Your task to perform on an android device: see sites visited before in the chrome app Image 0: 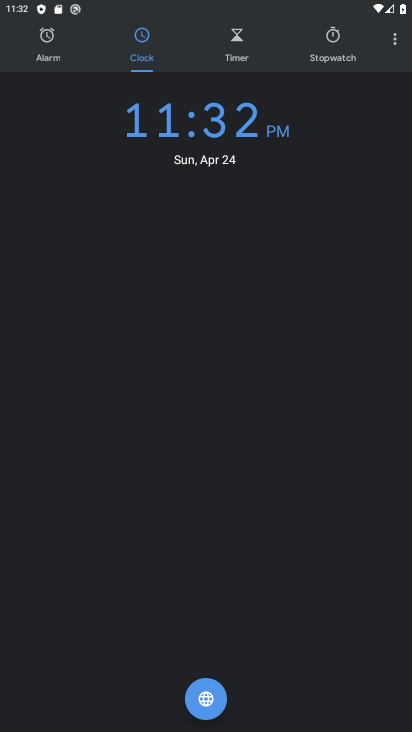
Step 0: press home button
Your task to perform on an android device: see sites visited before in the chrome app Image 1: 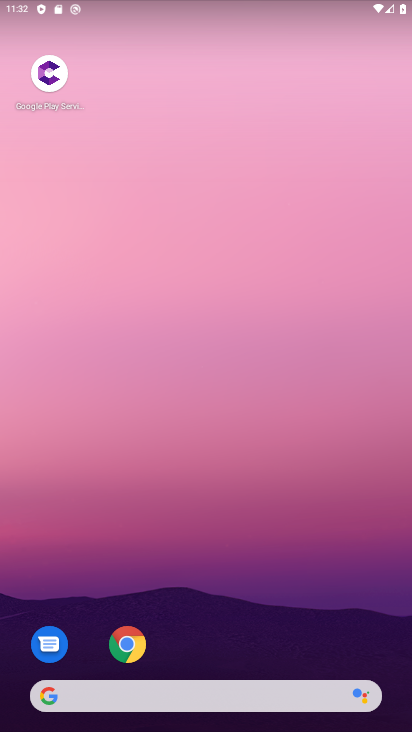
Step 1: drag from (226, 689) to (12, 16)
Your task to perform on an android device: see sites visited before in the chrome app Image 2: 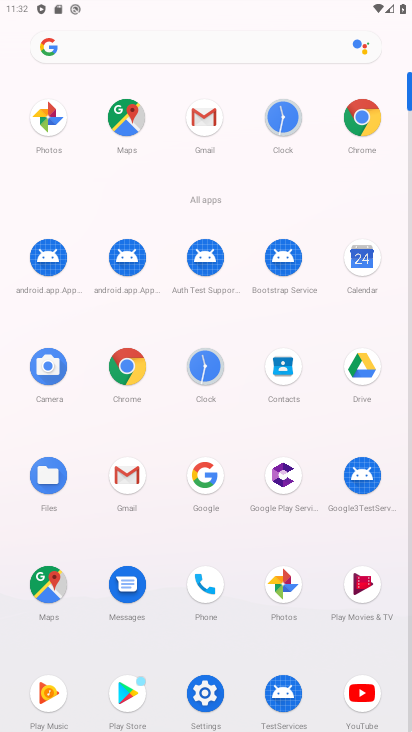
Step 2: click (16, 64)
Your task to perform on an android device: see sites visited before in the chrome app Image 3: 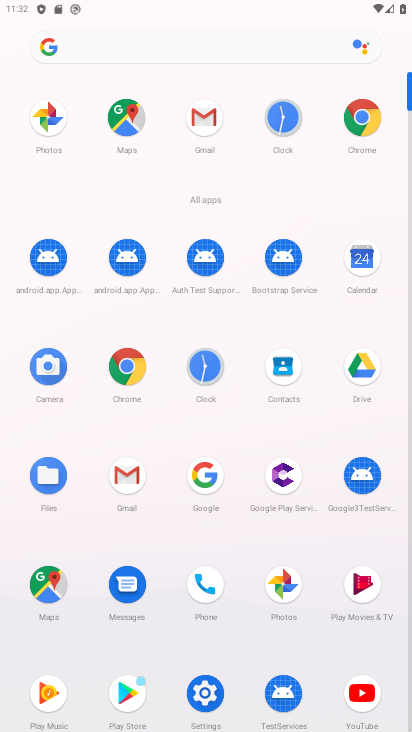
Step 3: click (367, 114)
Your task to perform on an android device: see sites visited before in the chrome app Image 4: 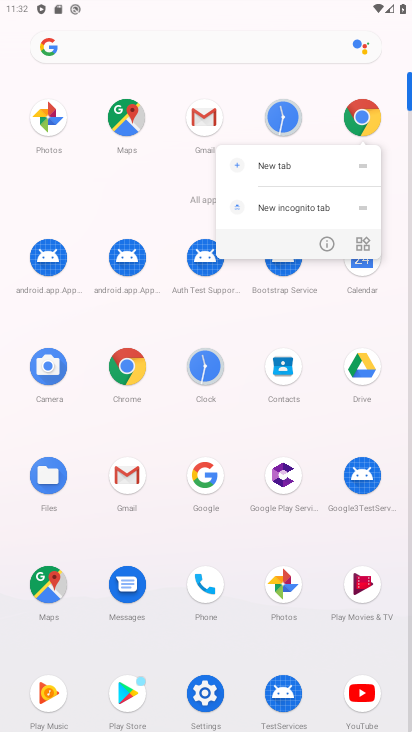
Step 4: click (364, 117)
Your task to perform on an android device: see sites visited before in the chrome app Image 5: 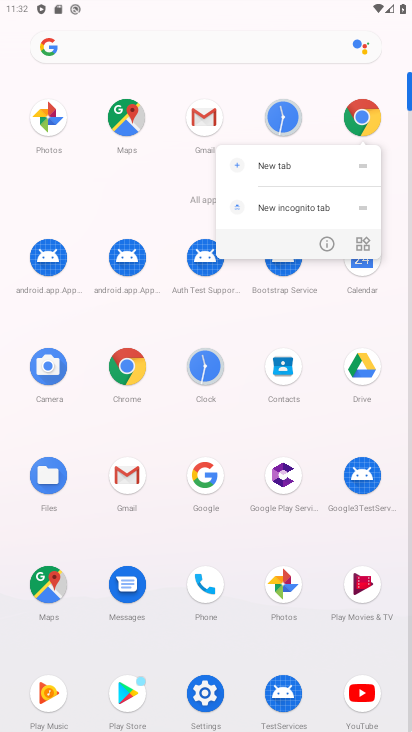
Step 5: click (363, 121)
Your task to perform on an android device: see sites visited before in the chrome app Image 6: 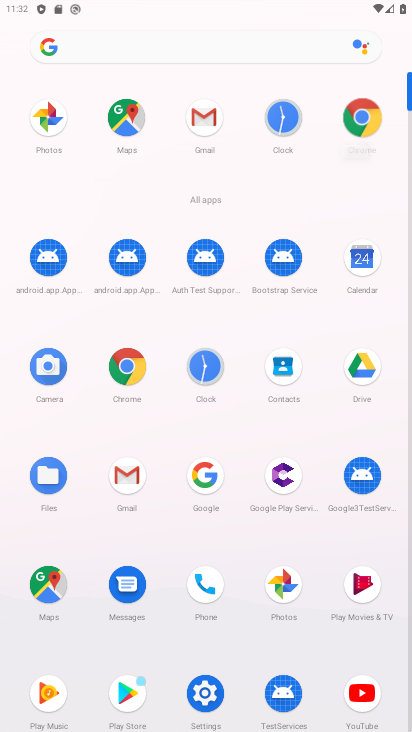
Step 6: click (363, 121)
Your task to perform on an android device: see sites visited before in the chrome app Image 7: 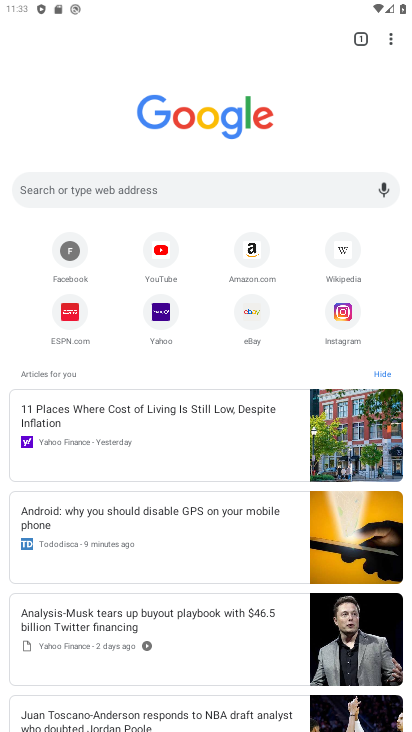
Step 7: drag from (391, 42) to (261, 179)
Your task to perform on an android device: see sites visited before in the chrome app Image 8: 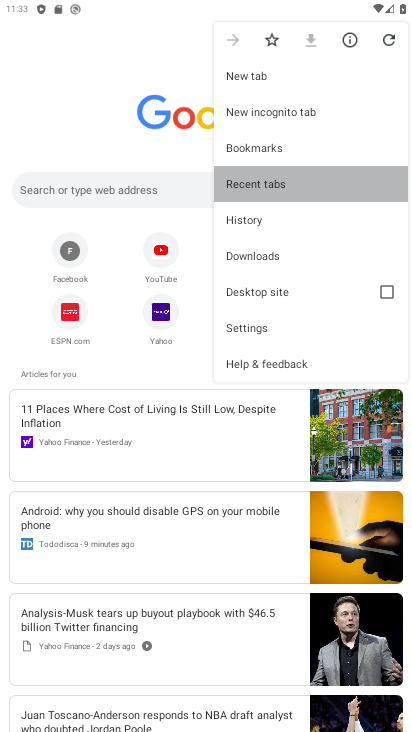
Step 8: click (261, 179)
Your task to perform on an android device: see sites visited before in the chrome app Image 9: 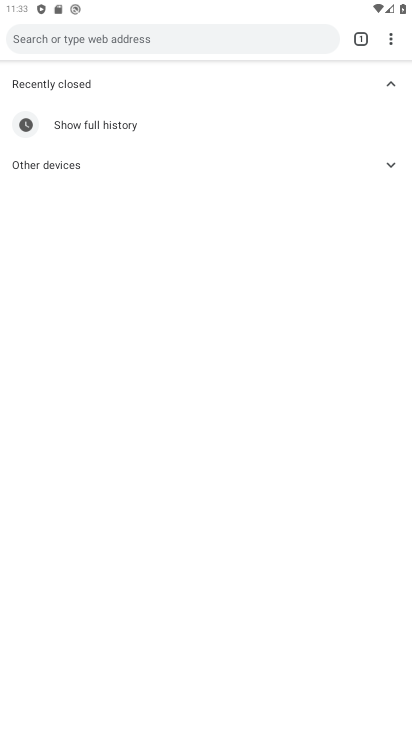
Step 9: task complete